Your task to perform on an android device: What's the weather? Image 0: 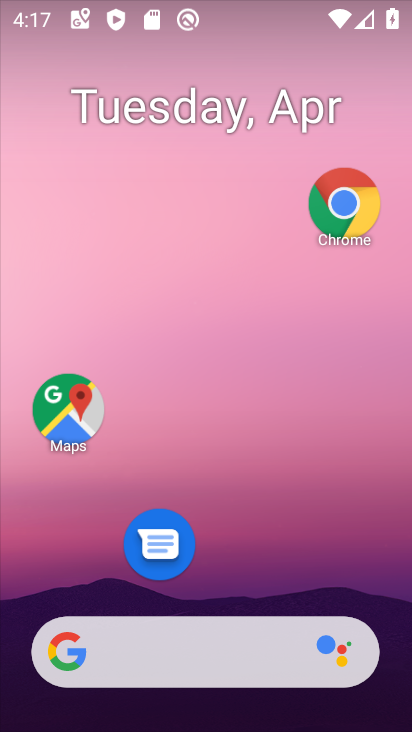
Step 0: click (265, 661)
Your task to perform on an android device: What's the weather? Image 1: 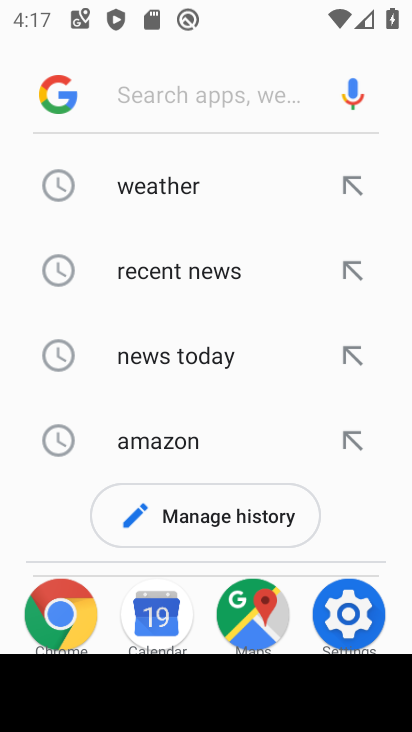
Step 1: click (157, 186)
Your task to perform on an android device: What's the weather? Image 2: 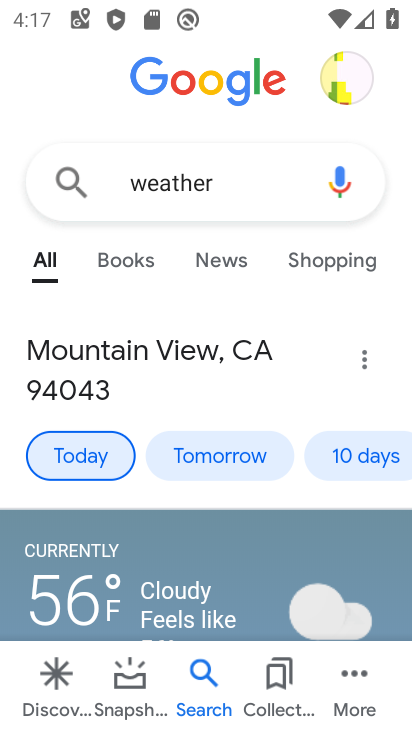
Step 2: task complete